Your task to perform on an android device: turn on airplane mode Image 0: 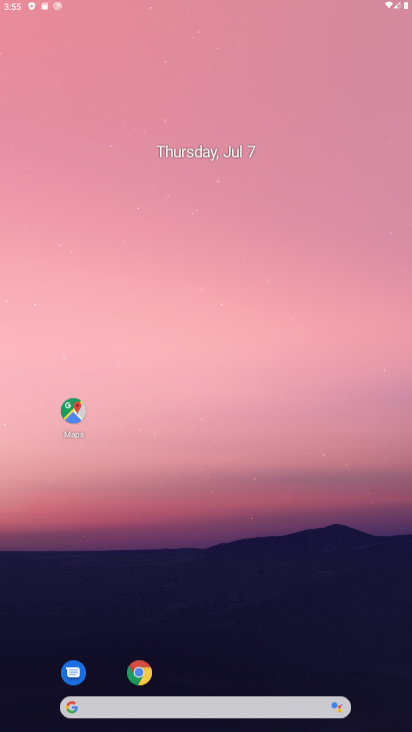
Step 0: press home button
Your task to perform on an android device: turn on airplane mode Image 1: 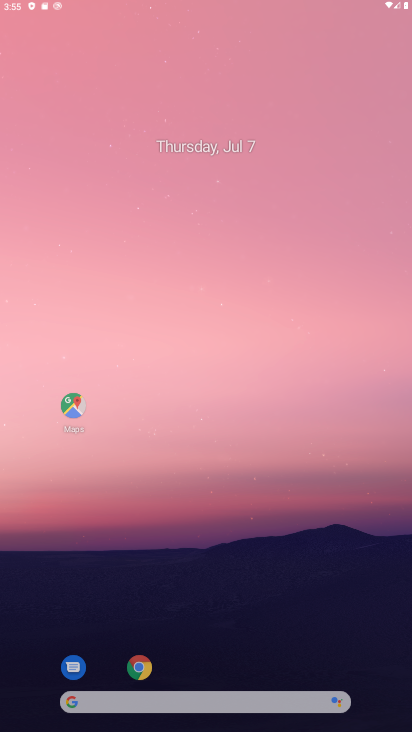
Step 1: drag from (197, 678) to (182, 122)
Your task to perform on an android device: turn on airplane mode Image 2: 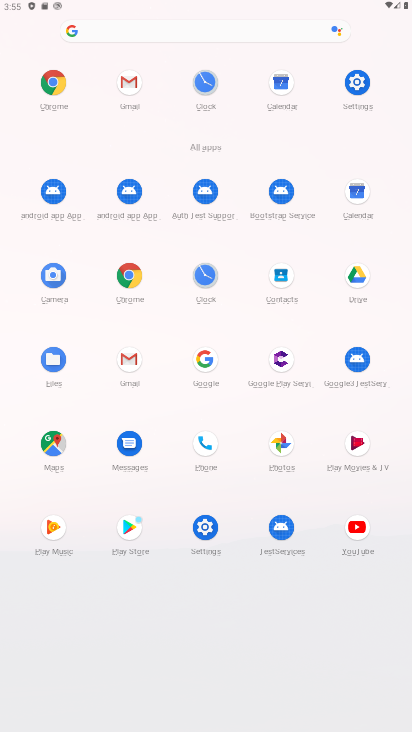
Step 2: drag from (250, 3) to (250, 426)
Your task to perform on an android device: turn on airplane mode Image 3: 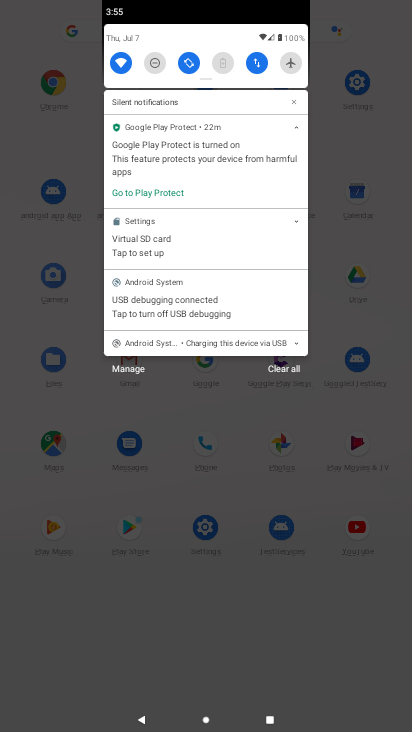
Step 3: click (292, 61)
Your task to perform on an android device: turn on airplane mode Image 4: 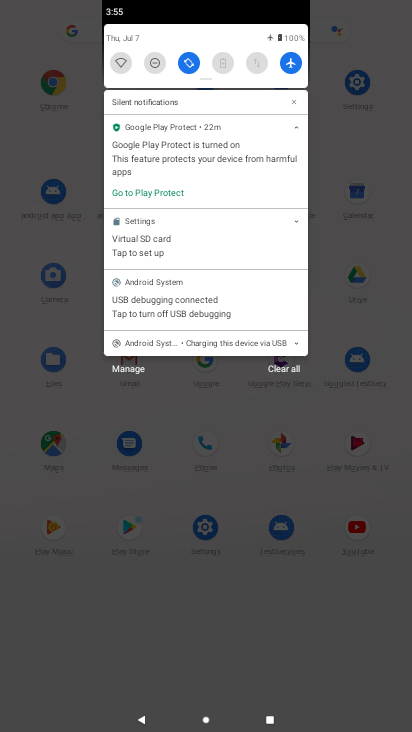
Step 4: task complete